Your task to perform on an android device: Open Amazon Image 0: 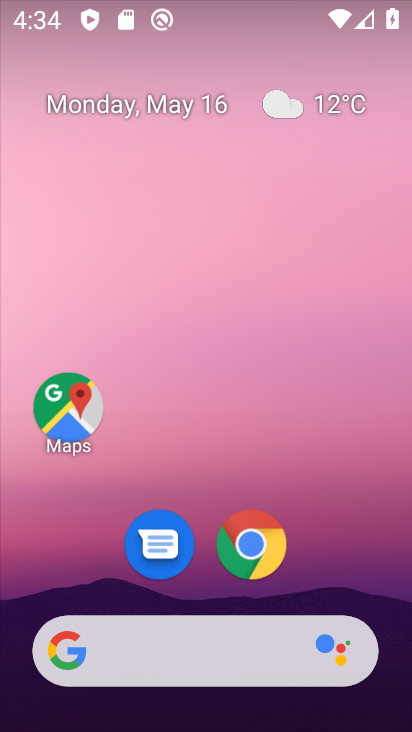
Step 0: click (253, 543)
Your task to perform on an android device: Open Amazon Image 1: 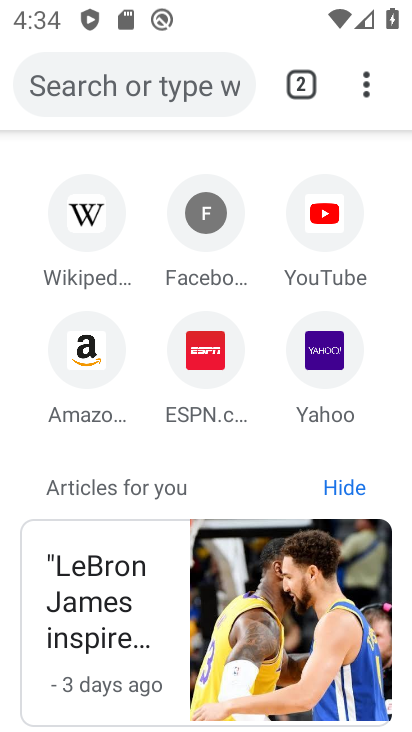
Step 1: click (91, 350)
Your task to perform on an android device: Open Amazon Image 2: 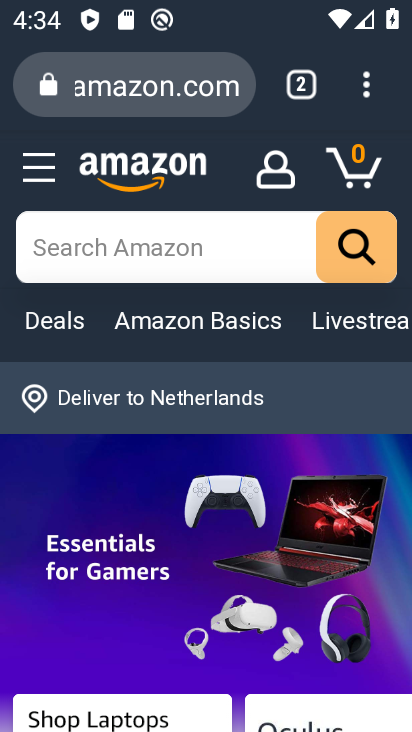
Step 2: task complete